Your task to perform on an android device: turn off picture-in-picture Image 0: 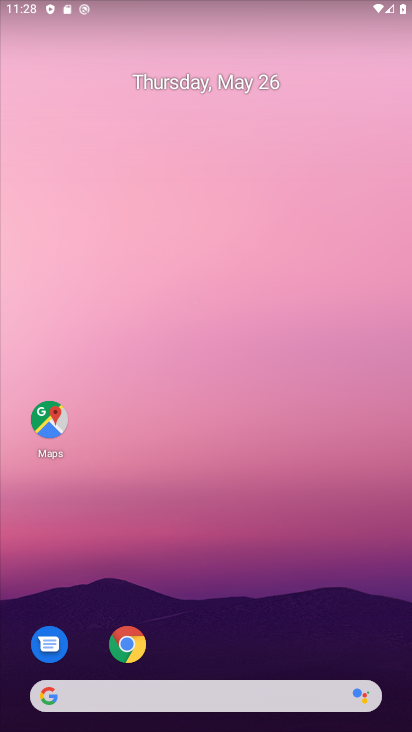
Step 0: drag from (297, 601) to (217, 12)
Your task to perform on an android device: turn off picture-in-picture Image 1: 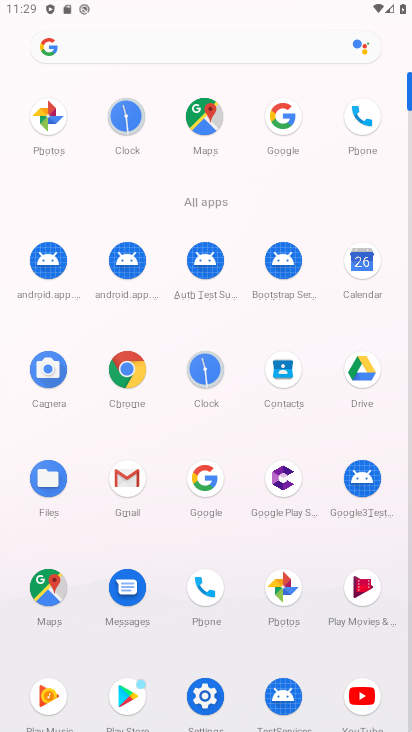
Step 1: click (215, 705)
Your task to perform on an android device: turn off picture-in-picture Image 2: 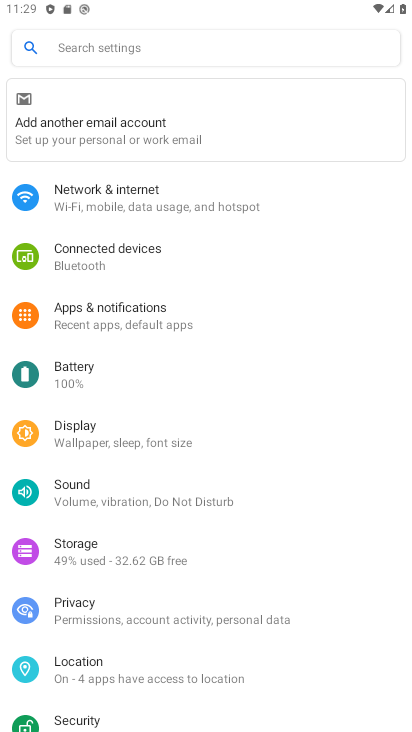
Step 2: click (169, 314)
Your task to perform on an android device: turn off picture-in-picture Image 3: 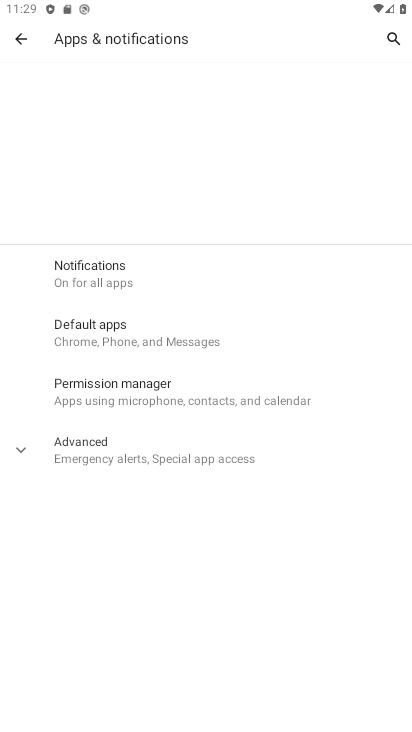
Step 3: click (174, 439)
Your task to perform on an android device: turn off picture-in-picture Image 4: 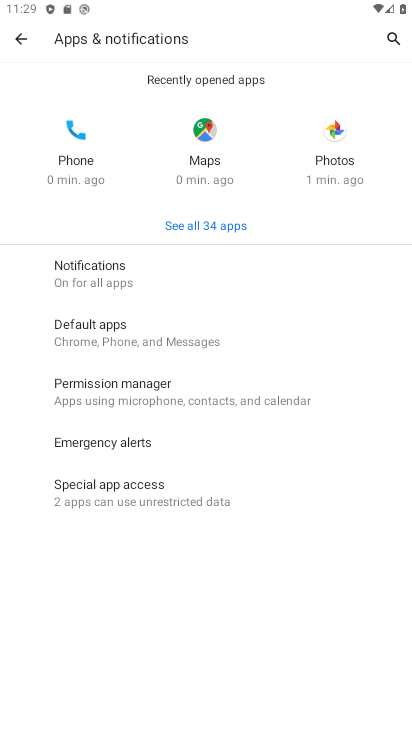
Step 4: click (177, 500)
Your task to perform on an android device: turn off picture-in-picture Image 5: 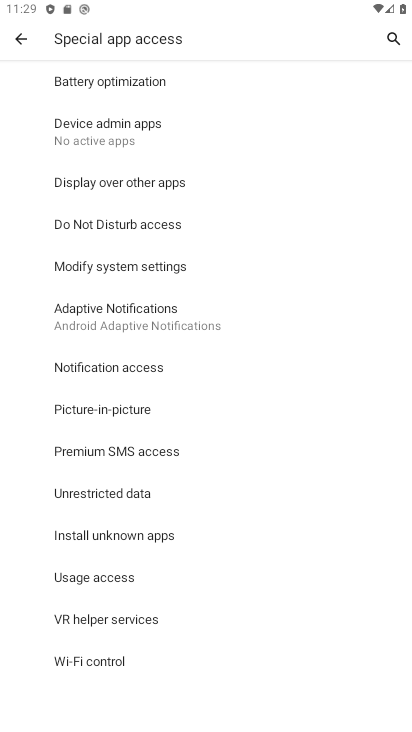
Step 5: click (123, 408)
Your task to perform on an android device: turn off picture-in-picture Image 6: 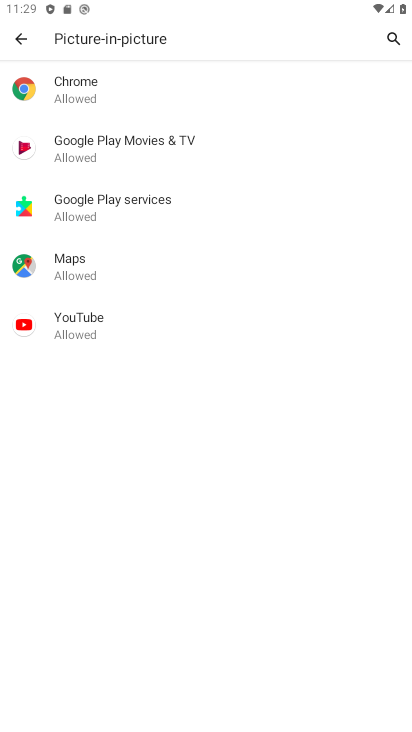
Step 6: click (193, 259)
Your task to perform on an android device: turn off picture-in-picture Image 7: 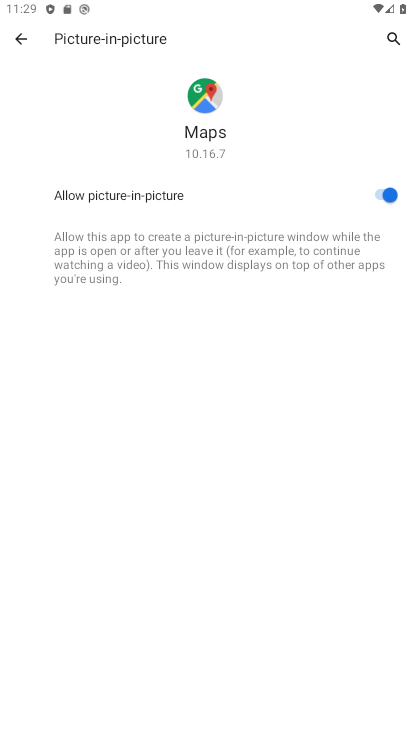
Step 7: click (378, 190)
Your task to perform on an android device: turn off picture-in-picture Image 8: 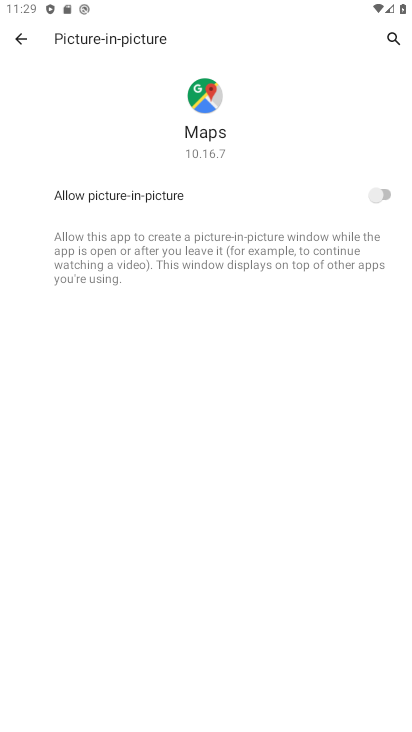
Step 8: task complete